Your task to perform on an android device: Search for sushi restaurants on Maps Image 0: 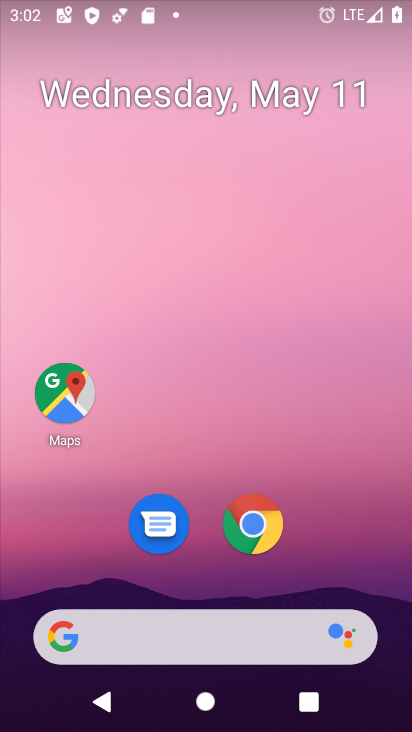
Step 0: click (78, 395)
Your task to perform on an android device: Search for sushi restaurants on Maps Image 1: 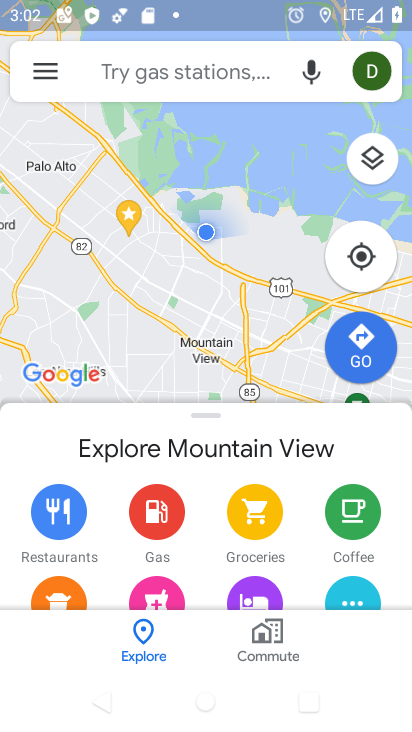
Step 1: click (125, 58)
Your task to perform on an android device: Search for sushi restaurants on Maps Image 2: 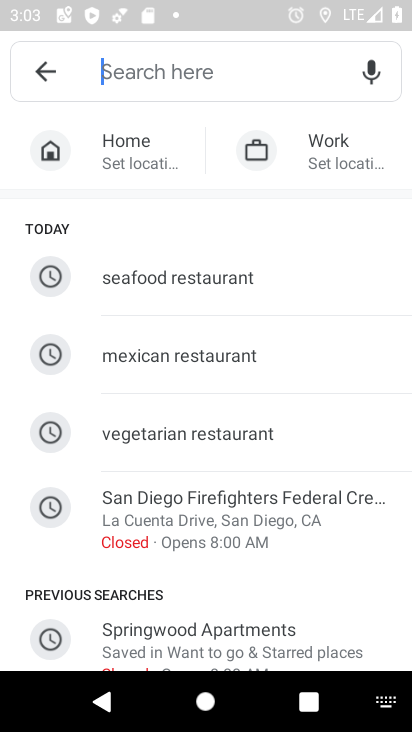
Step 2: type "sushi restaurants"
Your task to perform on an android device: Search for sushi restaurants on Maps Image 3: 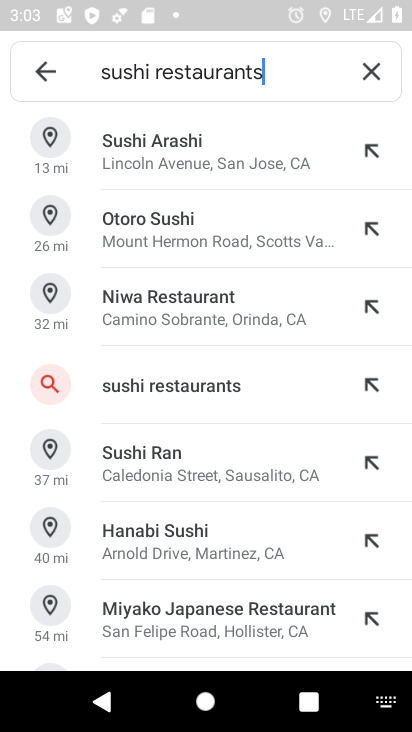
Step 3: click (217, 375)
Your task to perform on an android device: Search for sushi restaurants on Maps Image 4: 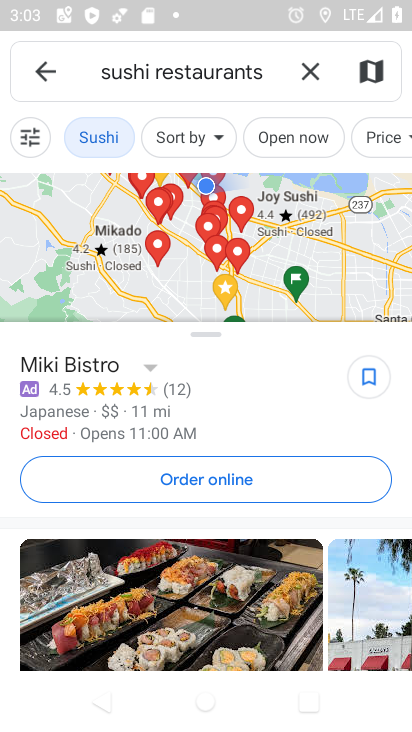
Step 4: task complete